Your task to perform on an android device: toggle sleep mode Image 0: 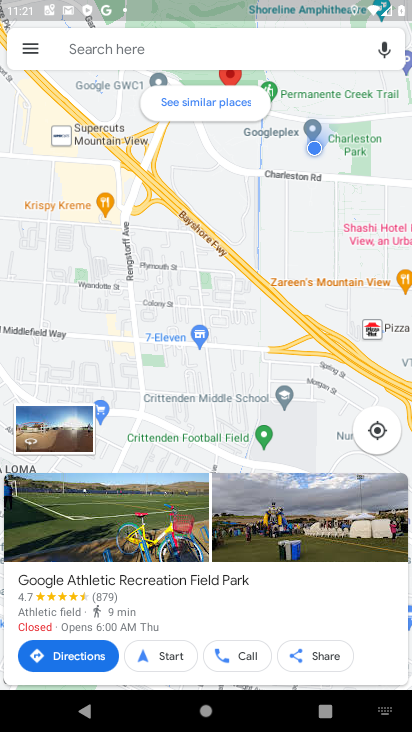
Step 0: drag from (213, 550) to (247, 348)
Your task to perform on an android device: toggle sleep mode Image 1: 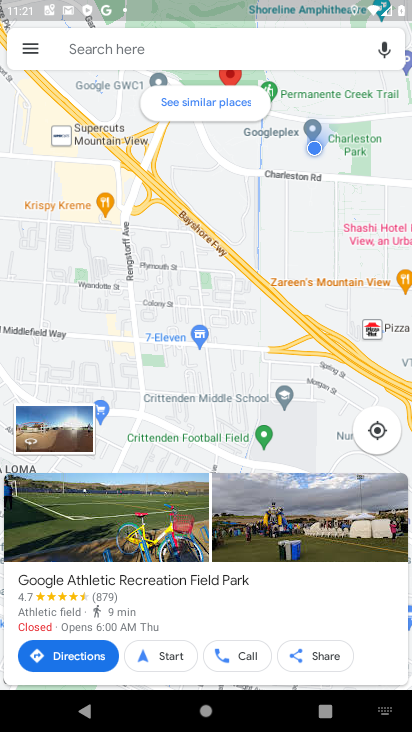
Step 1: drag from (283, 560) to (62, 535)
Your task to perform on an android device: toggle sleep mode Image 2: 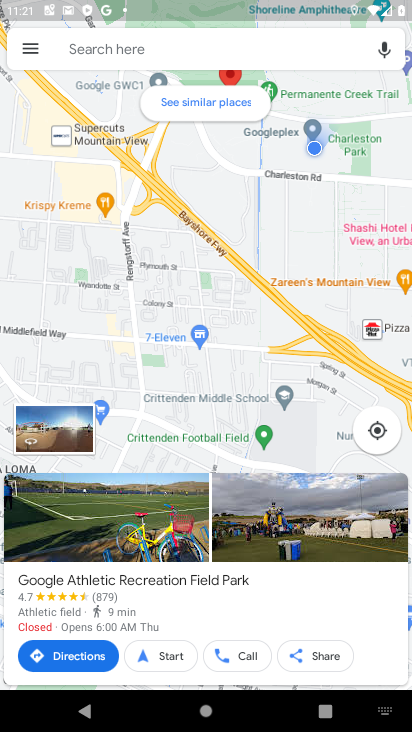
Step 2: drag from (182, 506) to (259, 227)
Your task to perform on an android device: toggle sleep mode Image 3: 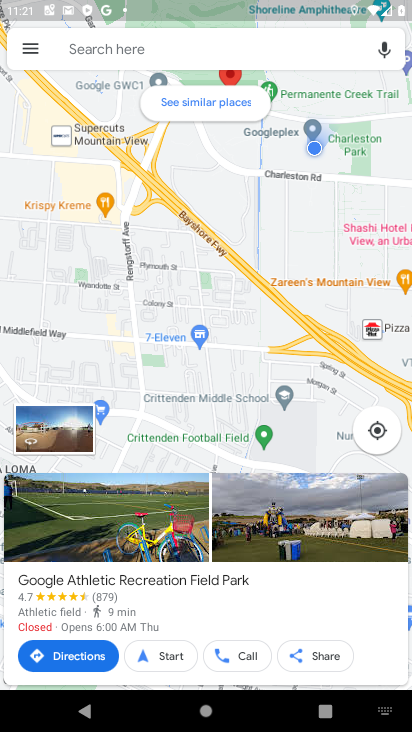
Step 3: press home button
Your task to perform on an android device: toggle sleep mode Image 4: 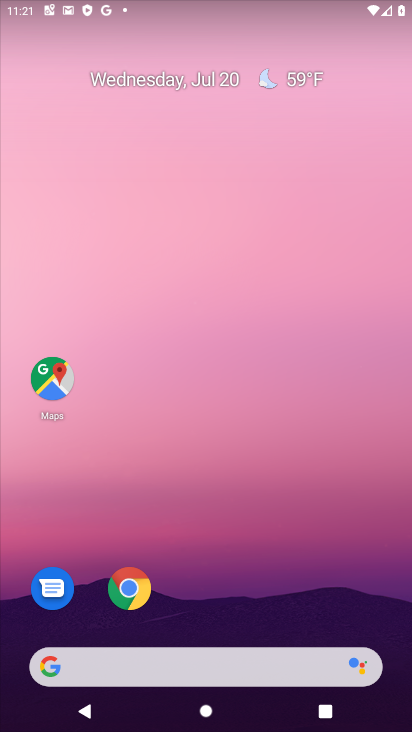
Step 4: drag from (170, 548) to (216, 249)
Your task to perform on an android device: toggle sleep mode Image 5: 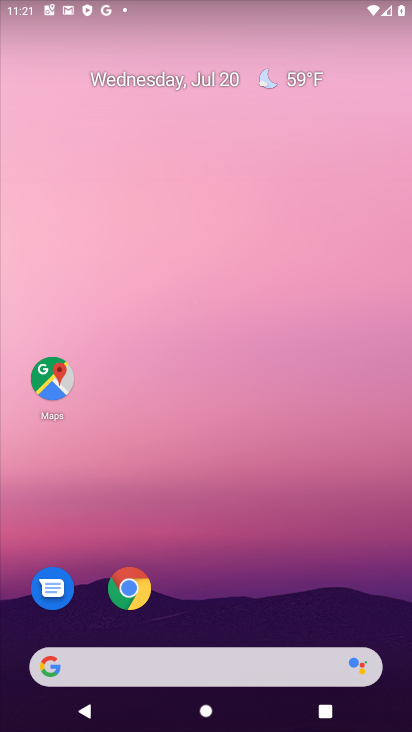
Step 5: drag from (178, 623) to (337, 57)
Your task to perform on an android device: toggle sleep mode Image 6: 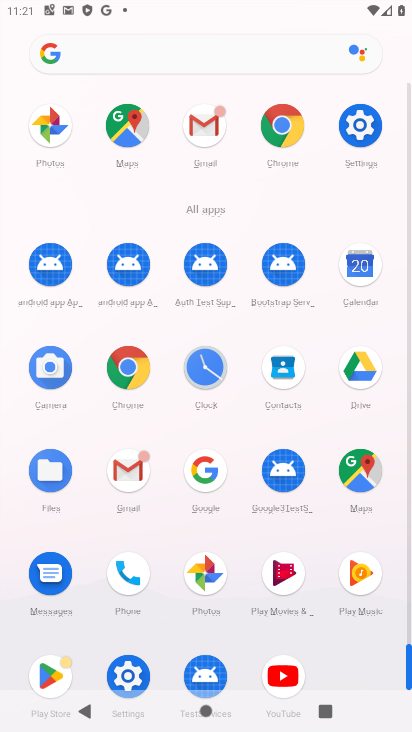
Step 6: click (356, 127)
Your task to perform on an android device: toggle sleep mode Image 7: 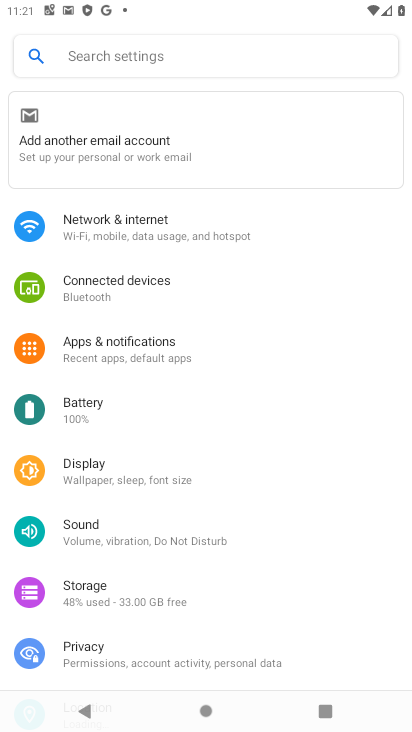
Step 7: click (100, 452)
Your task to perform on an android device: toggle sleep mode Image 8: 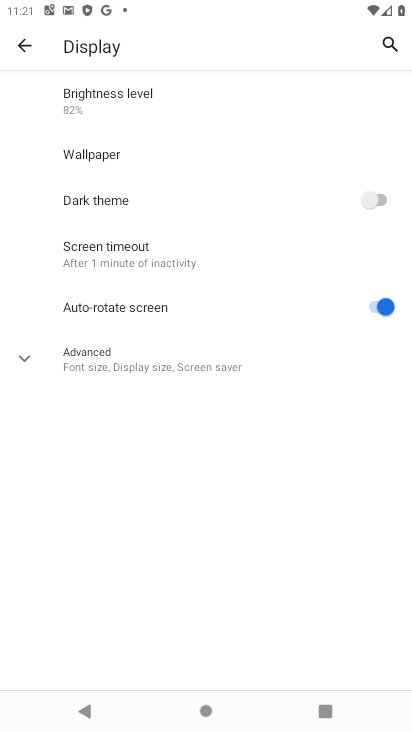
Step 8: click (201, 256)
Your task to perform on an android device: toggle sleep mode Image 9: 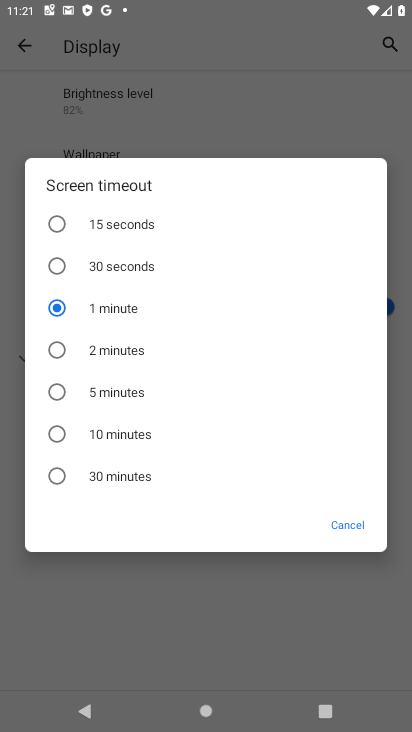
Step 9: click (79, 222)
Your task to perform on an android device: toggle sleep mode Image 10: 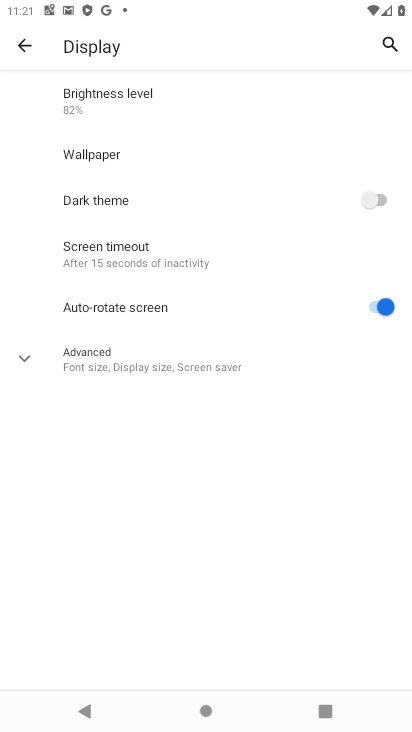
Step 10: task complete